Your task to perform on an android device: Add macbook to the cart on newegg Image 0: 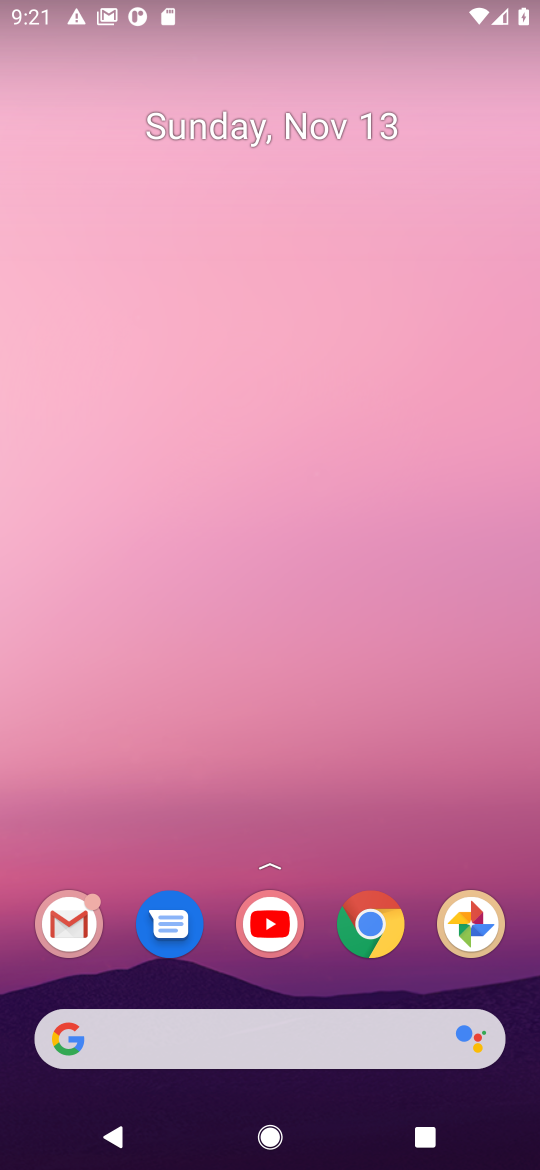
Step 0: click (363, 933)
Your task to perform on an android device: Add macbook to the cart on newegg Image 1: 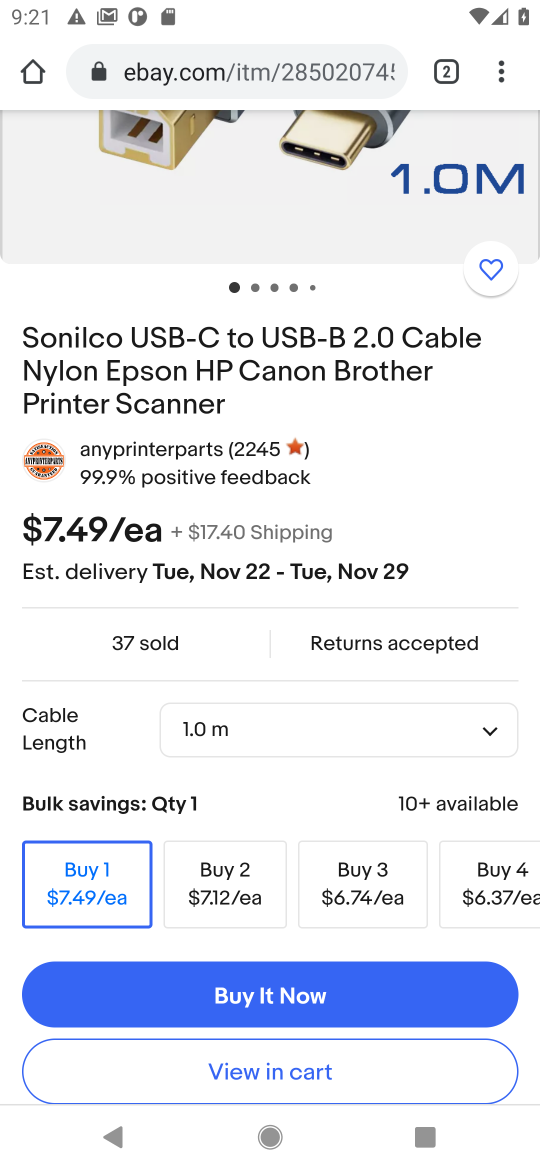
Step 1: click (230, 71)
Your task to perform on an android device: Add macbook to the cart on newegg Image 2: 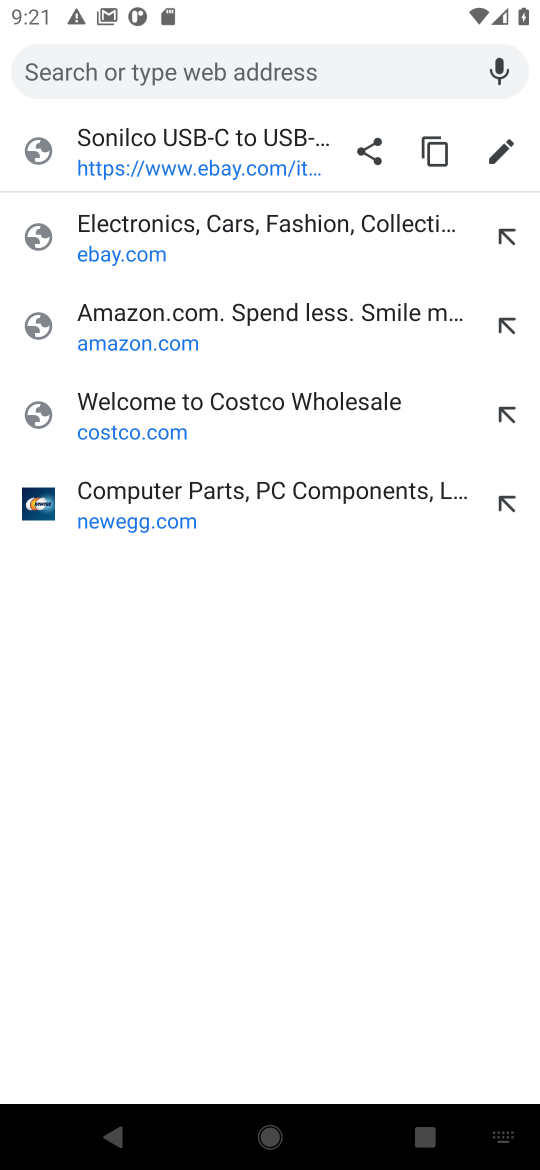
Step 2: click (97, 523)
Your task to perform on an android device: Add macbook to the cart on newegg Image 3: 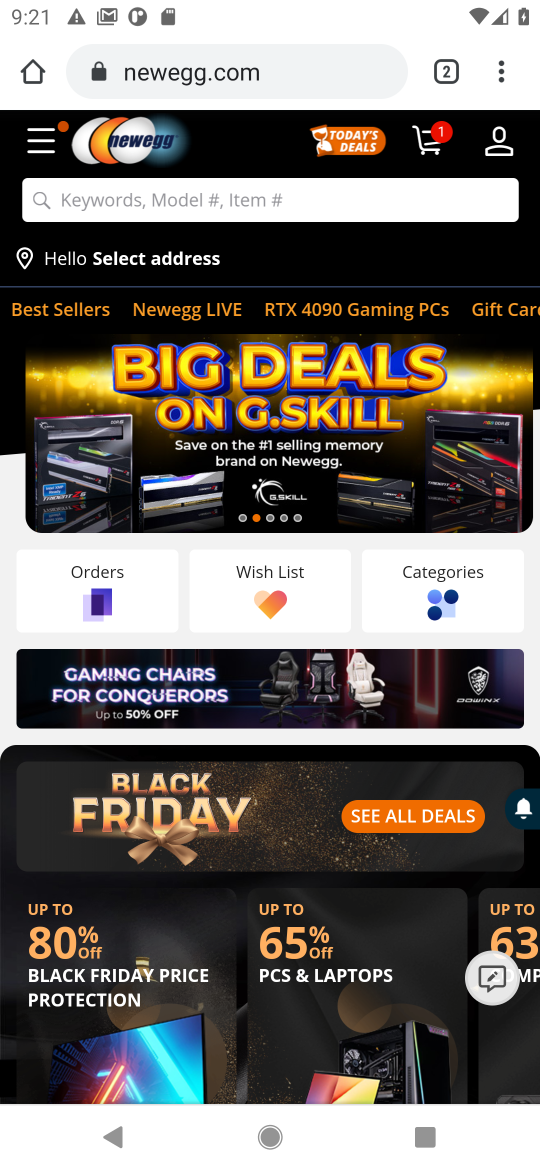
Step 3: click (159, 199)
Your task to perform on an android device: Add macbook to the cart on newegg Image 4: 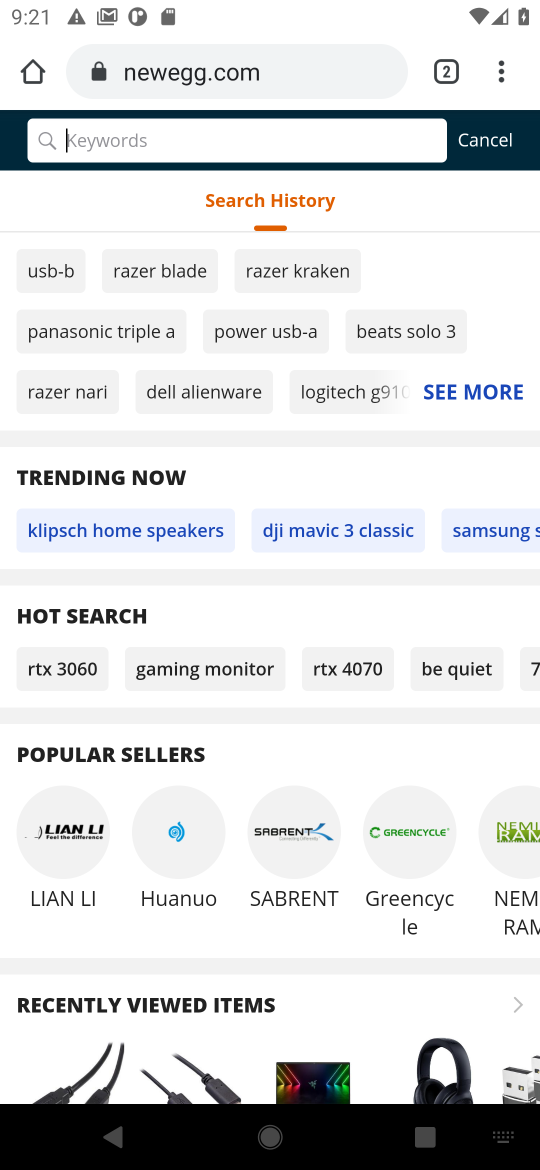
Step 4: type "macbook"
Your task to perform on an android device: Add macbook to the cart on newegg Image 5: 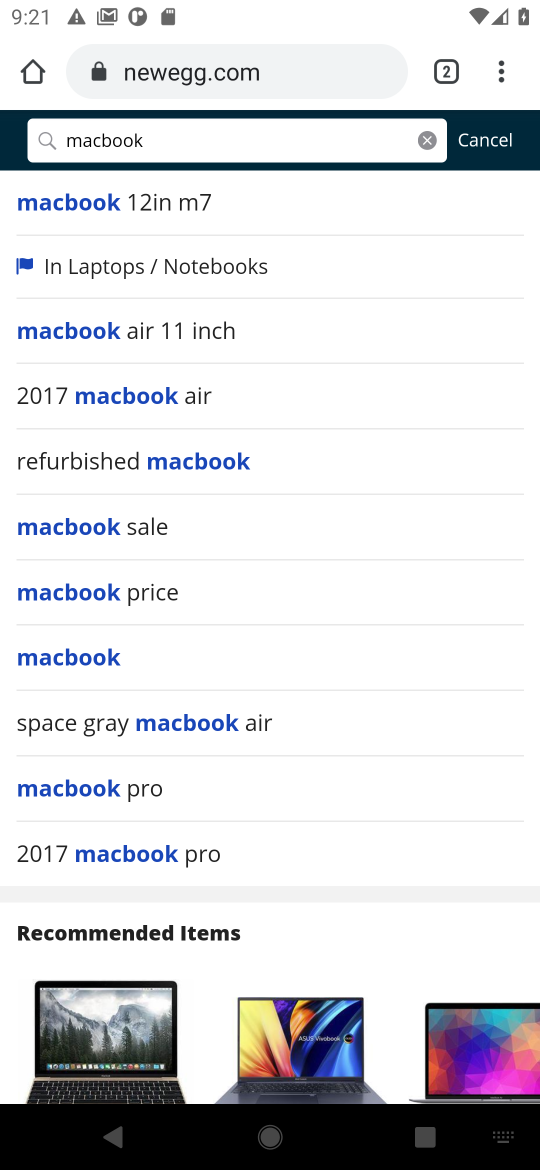
Step 5: click (63, 663)
Your task to perform on an android device: Add macbook to the cart on newegg Image 6: 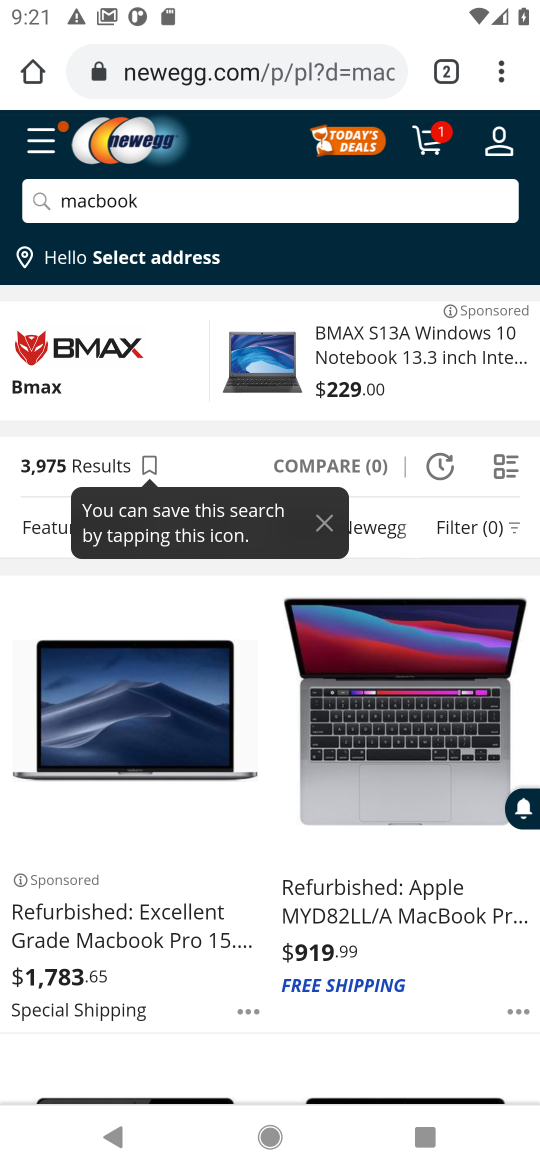
Step 6: click (142, 794)
Your task to perform on an android device: Add macbook to the cart on newegg Image 7: 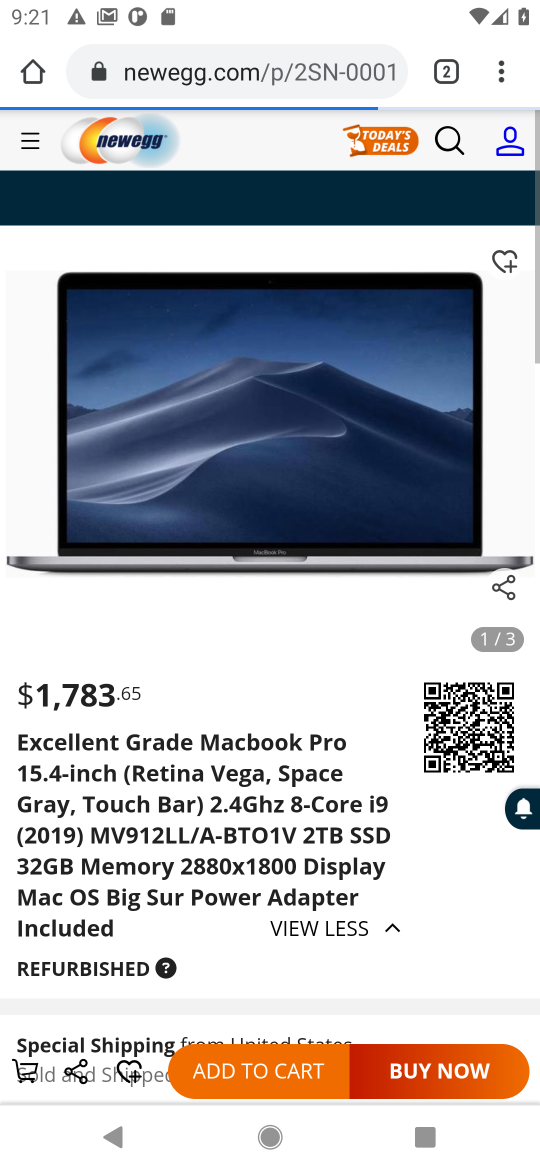
Step 7: click (245, 1067)
Your task to perform on an android device: Add macbook to the cart on newegg Image 8: 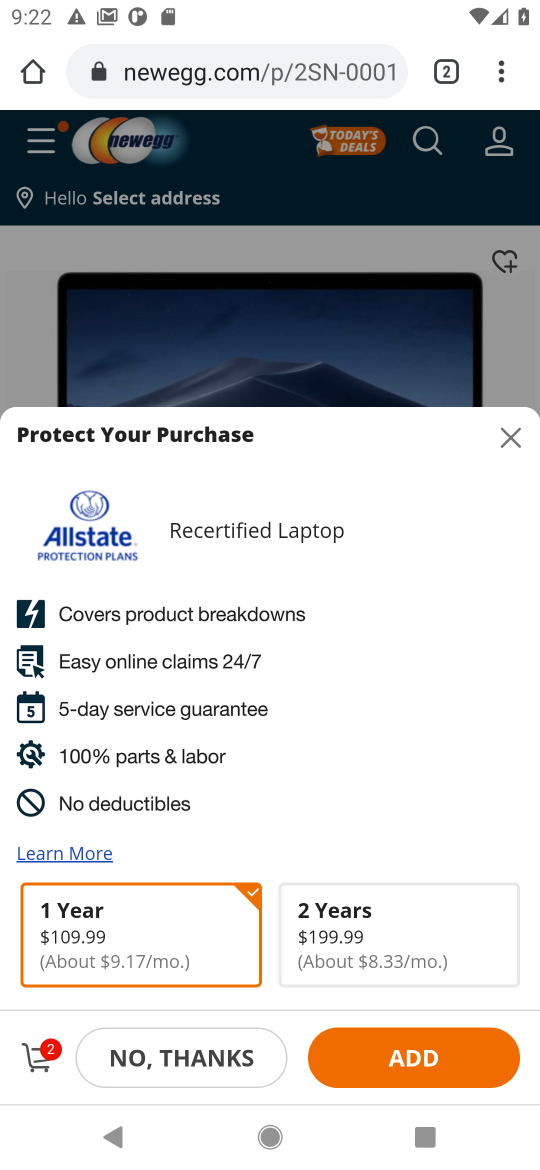
Step 8: task complete